Your task to perform on an android device: What's the weather going to be this weekend? Image 0: 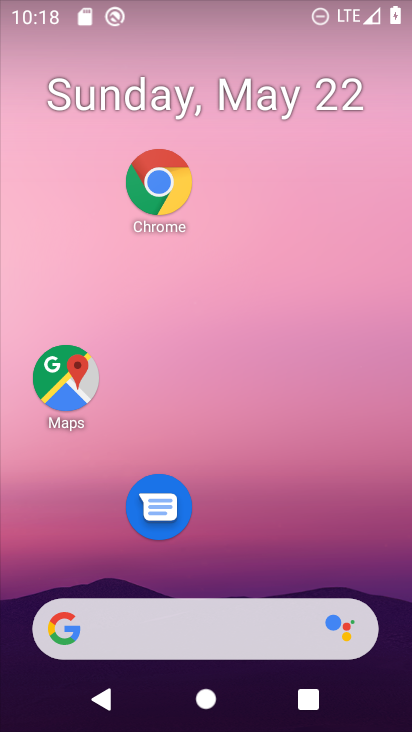
Step 0: click (100, 661)
Your task to perform on an android device: What's the weather going to be this weekend? Image 1: 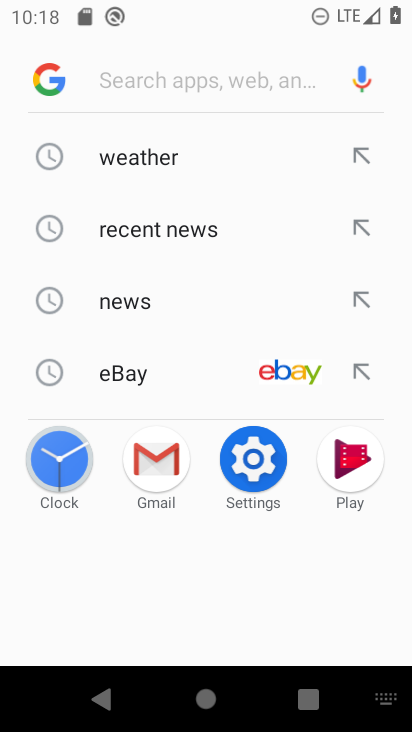
Step 1: type "What's the weather going to be this weekend?"
Your task to perform on an android device: What's the weather going to be this weekend? Image 2: 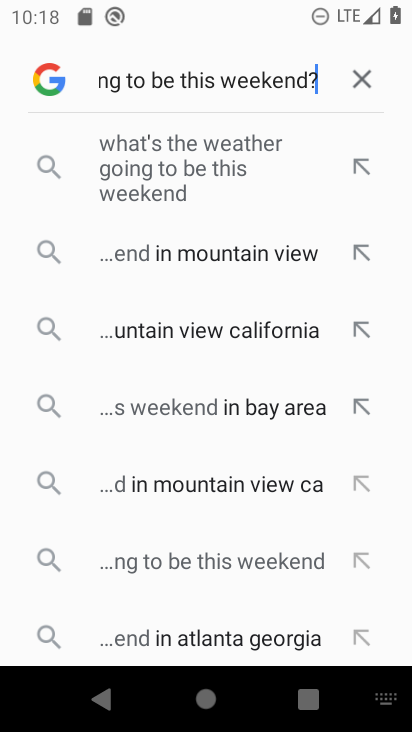
Step 2: click (247, 151)
Your task to perform on an android device: What's the weather going to be this weekend? Image 3: 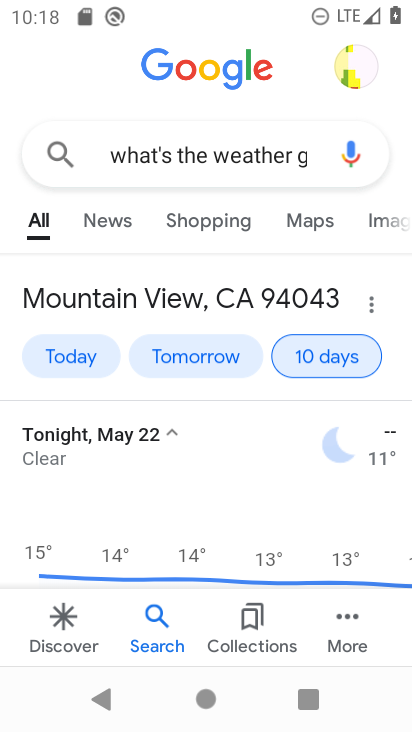
Step 3: task complete